Your task to perform on an android device: turn smart compose on in the gmail app Image 0: 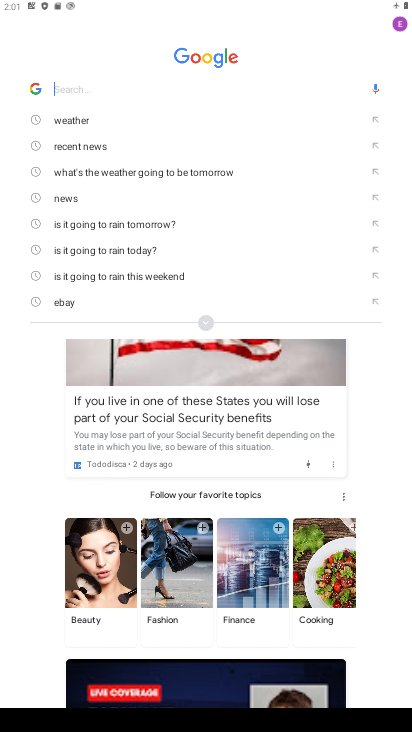
Step 0: press home button
Your task to perform on an android device: turn smart compose on in the gmail app Image 1: 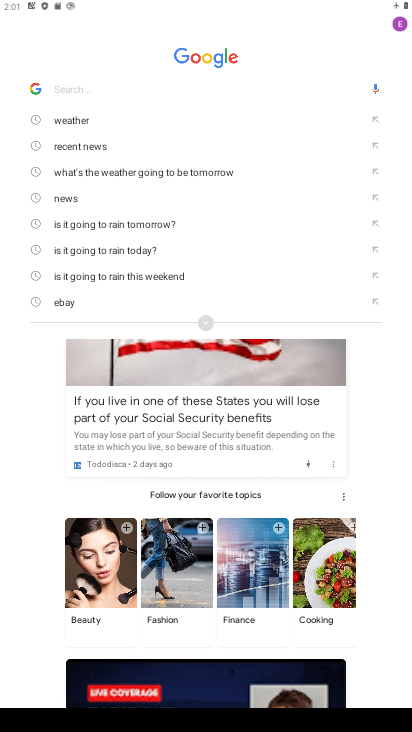
Step 1: press home button
Your task to perform on an android device: turn smart compose on in the gmail app Image 2: 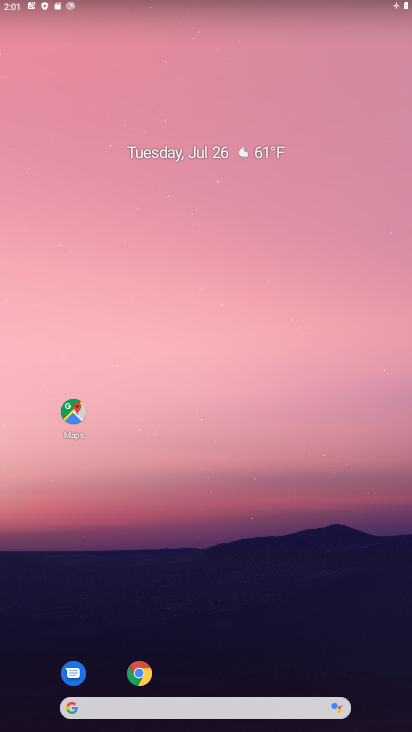
Step 2: drag from (201, 664) to (241, 126)
Your task to perform on an android device: turn smart compose on in the gmail app Image 3: 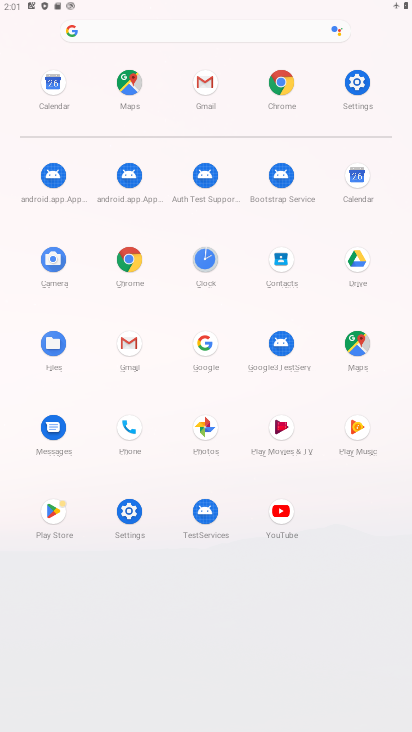
Step 3: click (124, 341)
Your task to perform on an android device: turn smart compose on in the gmail app Image 4: 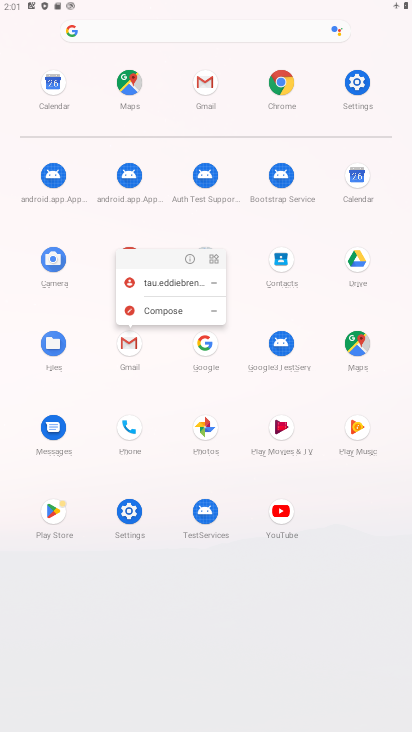
Step 4: click (191, 250)
Your task to perform on an android device: turn smart compose on in the gmail app Image 5: 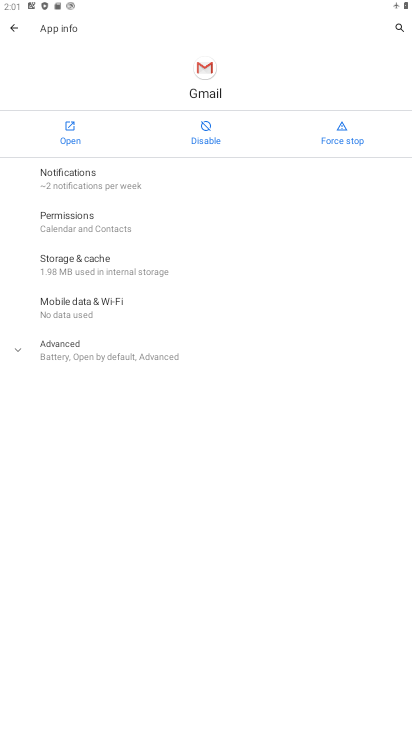
Step 5: click (67, 125)
Your task to perform on an android device: turn smart compose on in the gmail app Image 6: 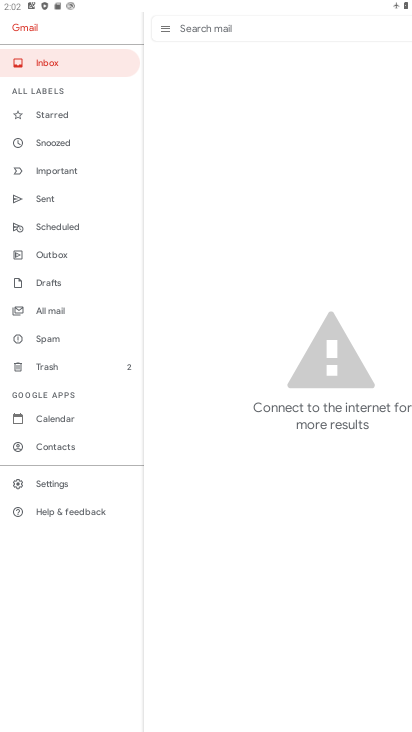
Step 6: click (52, 484)
Your task to perform on an android device: turn smart compose on in the gmail app Image 7: 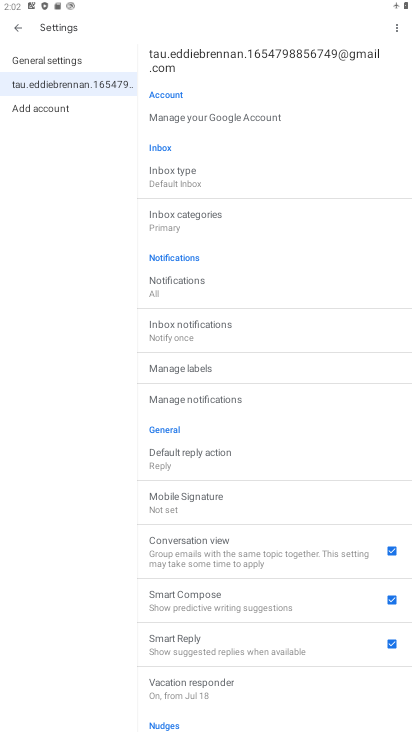
Step 7: task complete